Your task to perform on an android device: set an alarm Image 0: 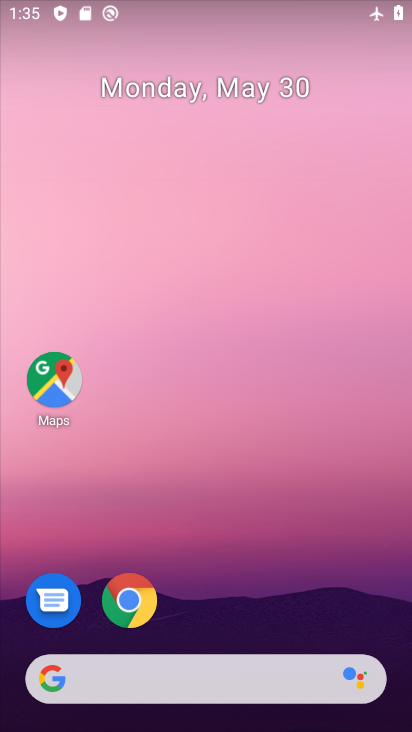
Step 0: drag from (238, 640) to (172, 70)
Your task to perform on an android device: set an alarm Image 1: 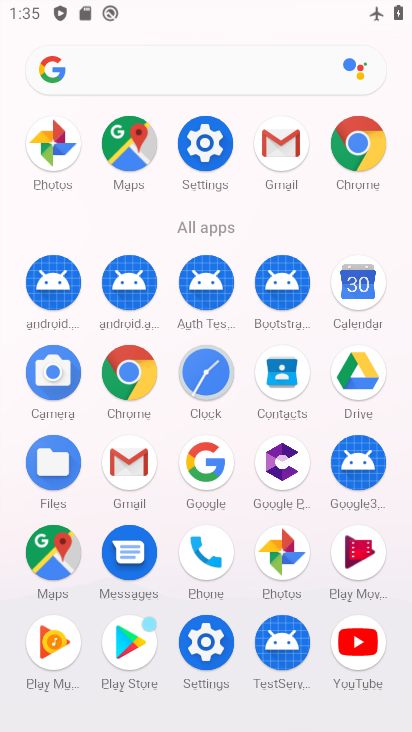
Step 1: click (210, 392)
Your task to perform on an android device: set an alarm Image 2: 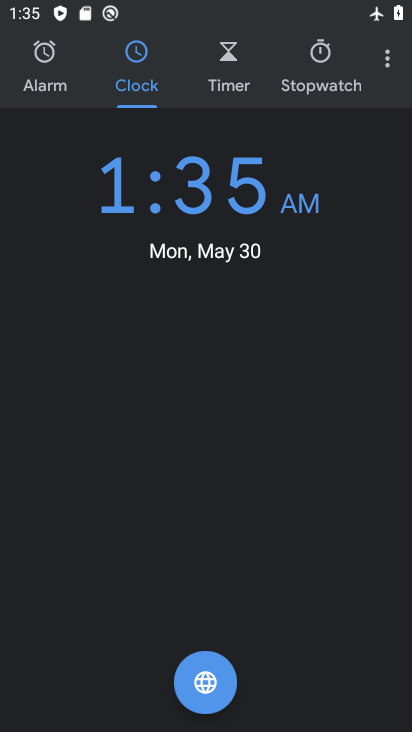
Step 2: click (59, 69)
Your task to perform on an android device: set an alarm Image 3: 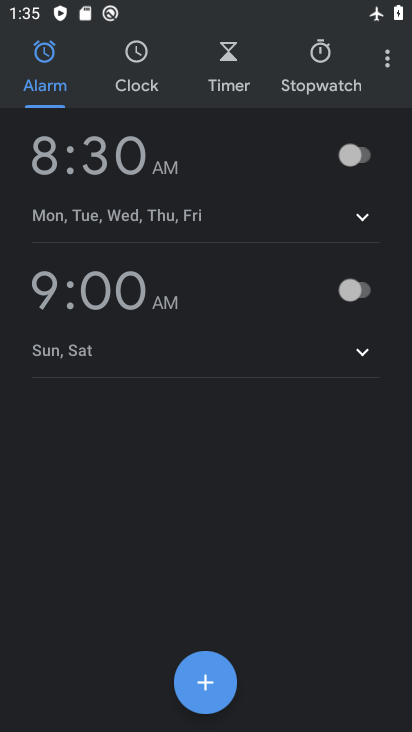
Step 3: click (204, 692)
Your task to perform on an android device: set an alarm Image 4: 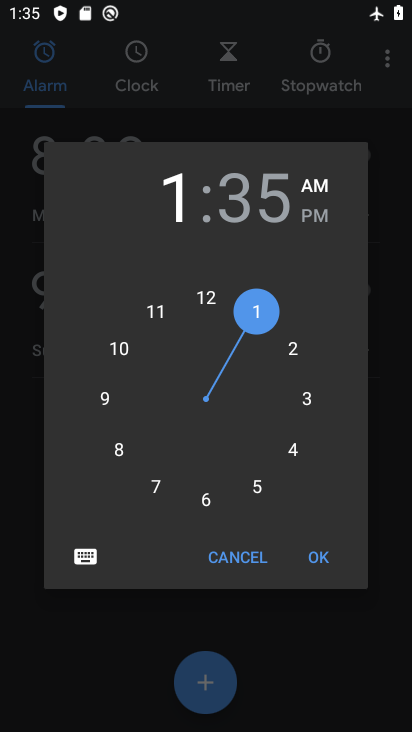
Step 4: click (336, 554)
Your task to perform on an android device: set an alarm Image 5: 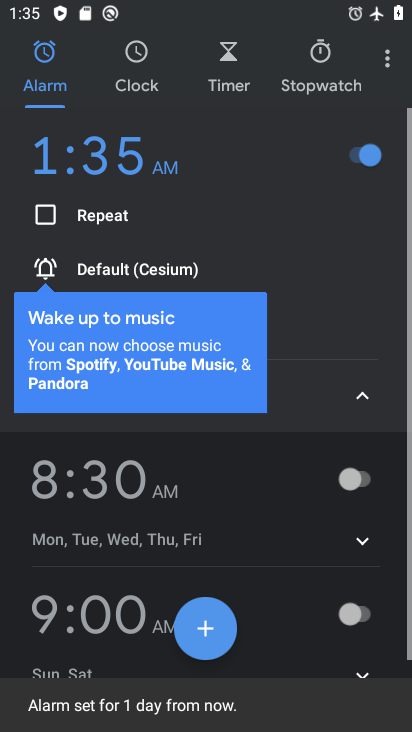
Step 5: task complete